Your task to perform on an android device: When is my next appointment? Image 0: 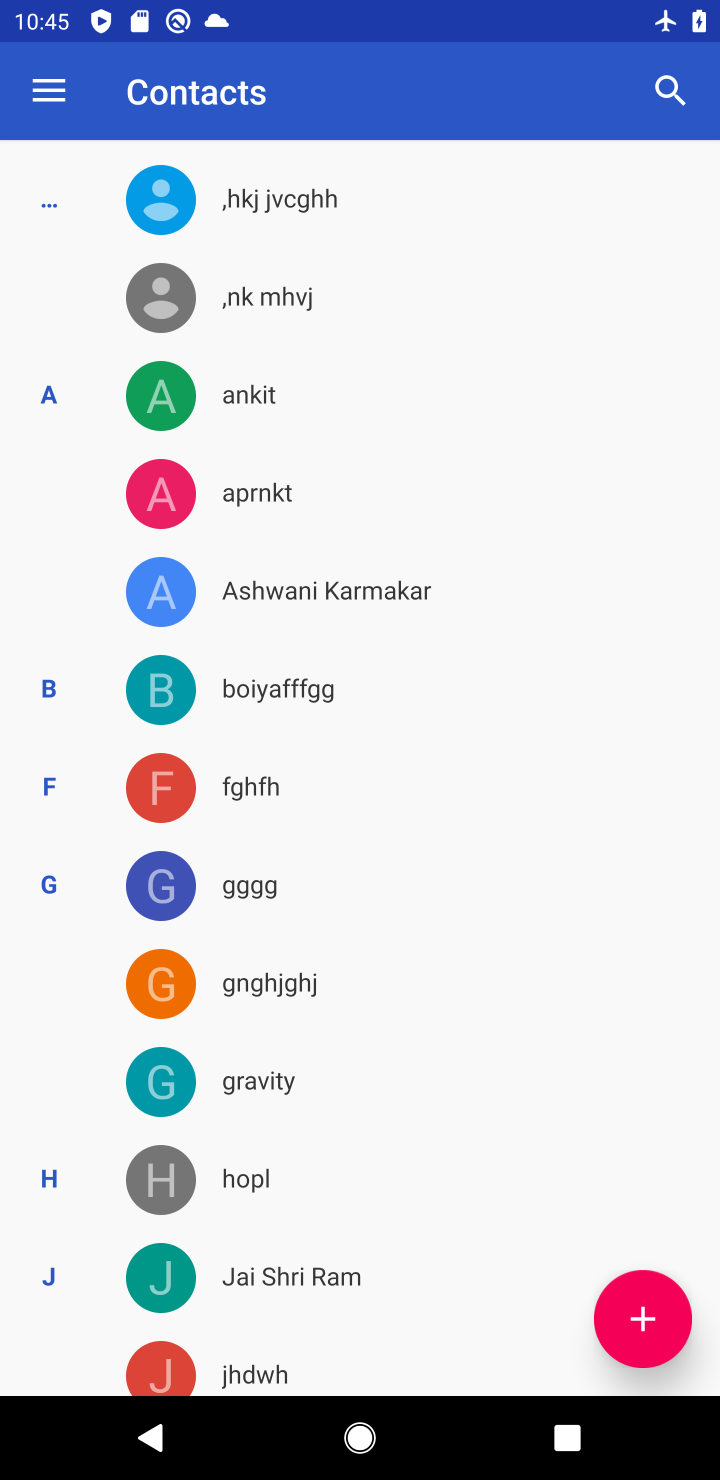
Step 0: press home button
Your task to perform on an android device: When is my next appointment? Image 1: 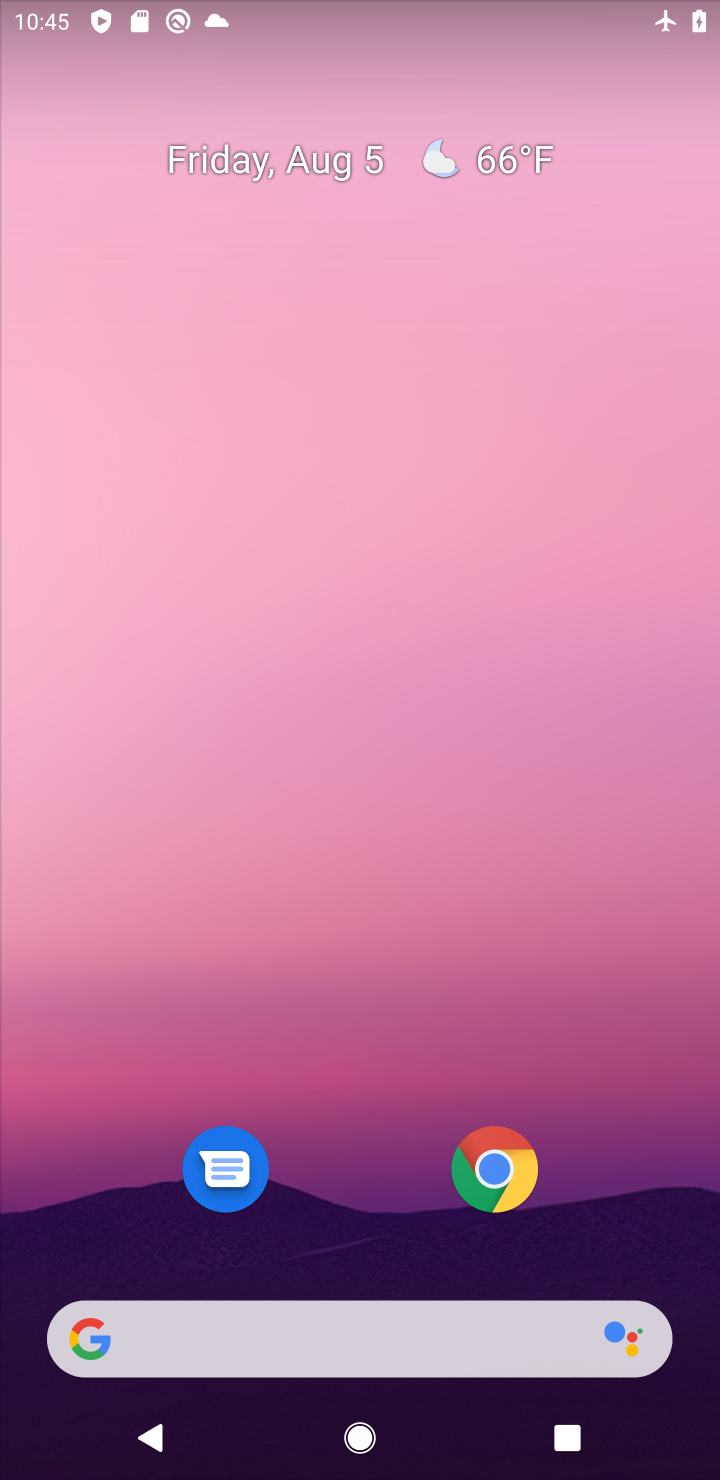
Step 1: drag from (563, 847) to (571, 159)
Your task to perform on an android device: When is my next appointment? Image 2: 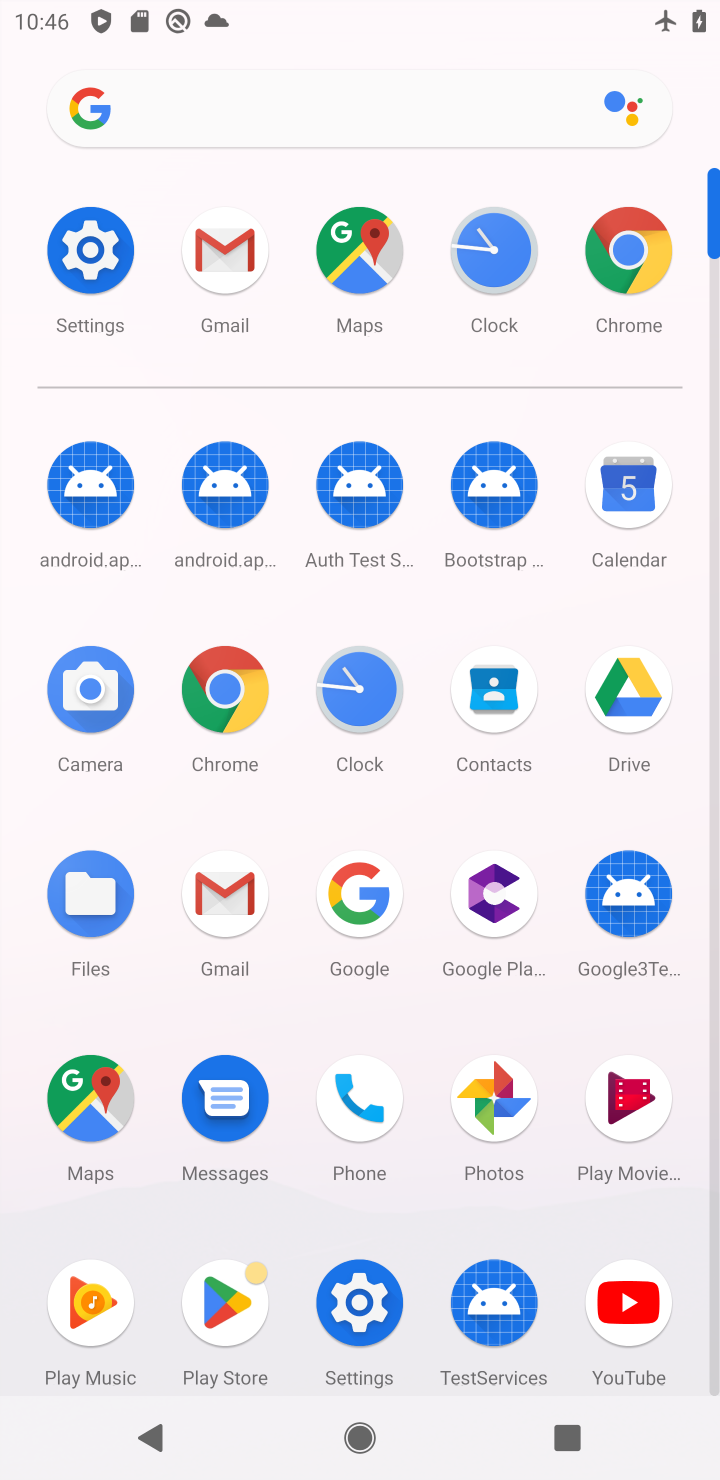
Step 2: click (629, 481)
Your task to perform on an android device: When is my next appointment? Image 3: 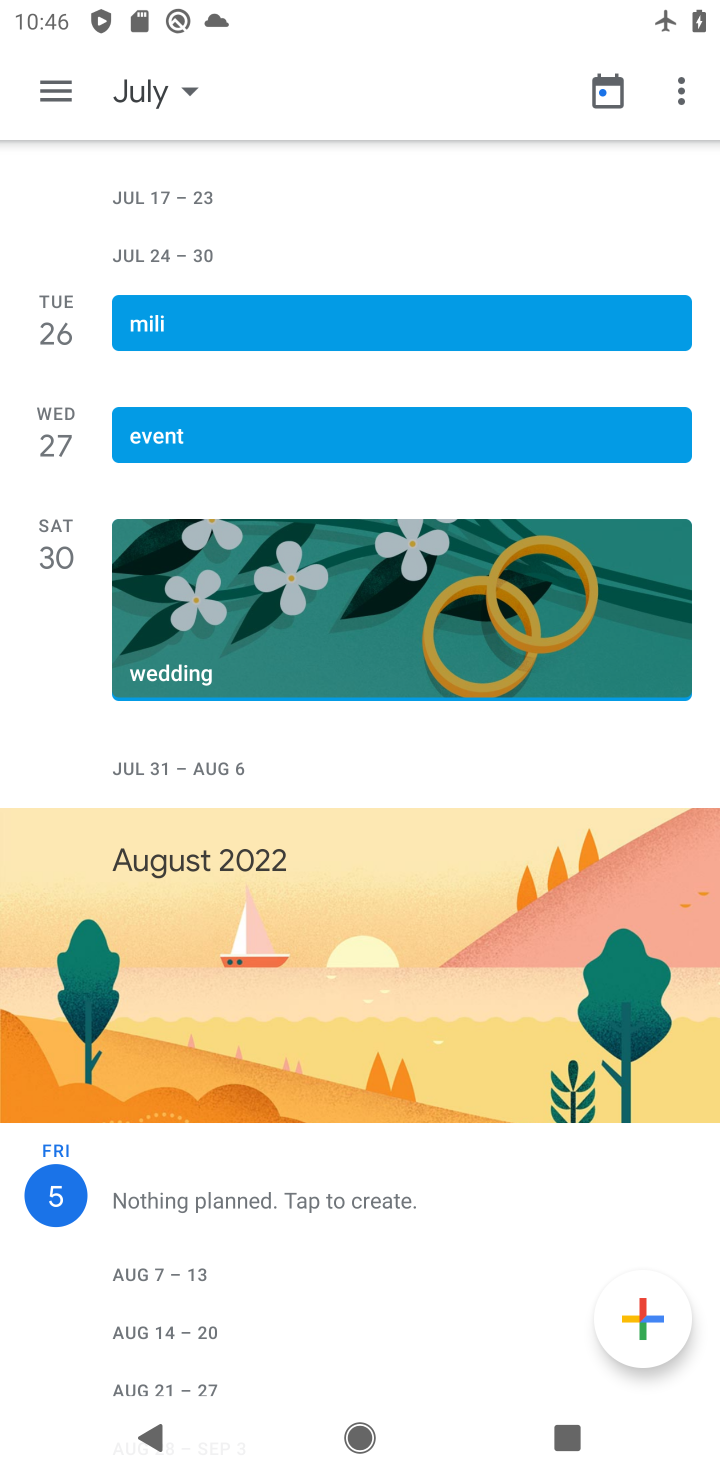
Step 3: task complete